Your task to perform on an android device: Open Google Maps and go to "Timeline" Image 0: 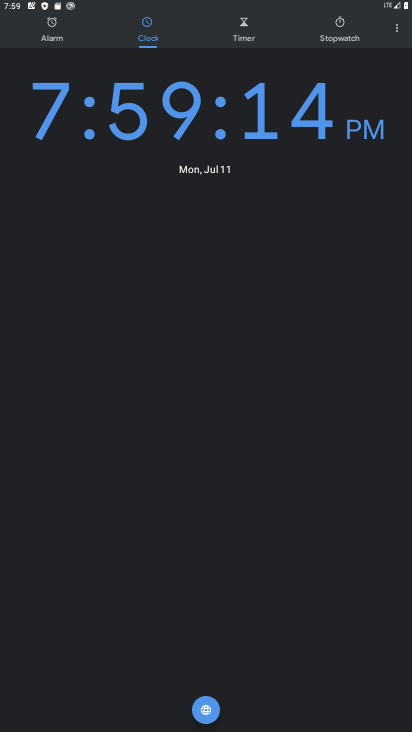
Step 0: press home button
Your task to perform on an android device: Open Google Maps and go to "Timeline" Image 1: 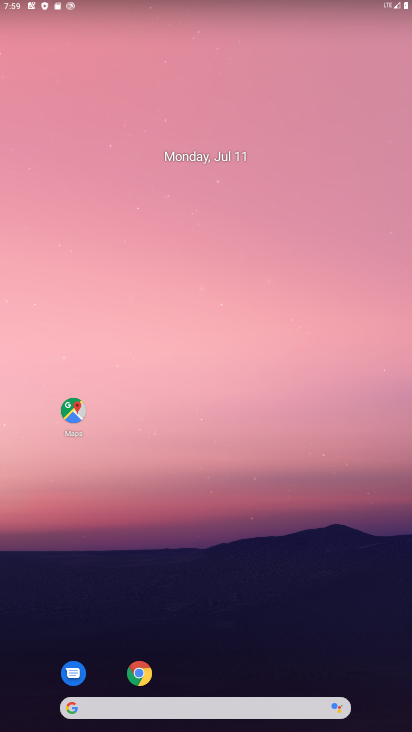
Step 1: click (72, 406)
Your task to perform on an android device: Open Google Maps and go to "Timeline" Image 2: 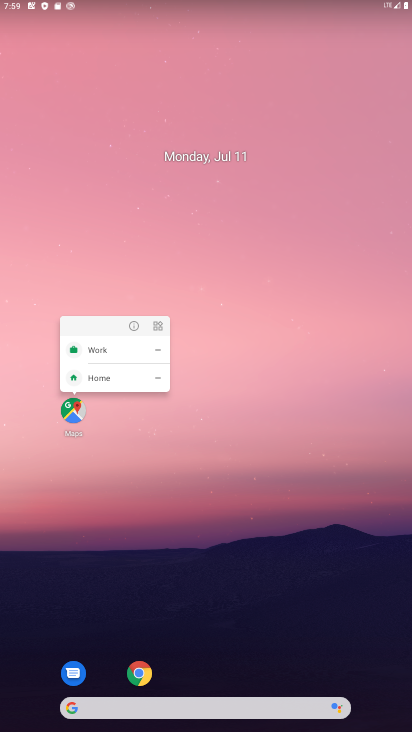
Step 2: drag from (173, 698) to (218, 327)
Your task to perform on an android device: Open Google Maps and go to "Timeline" Image 3: 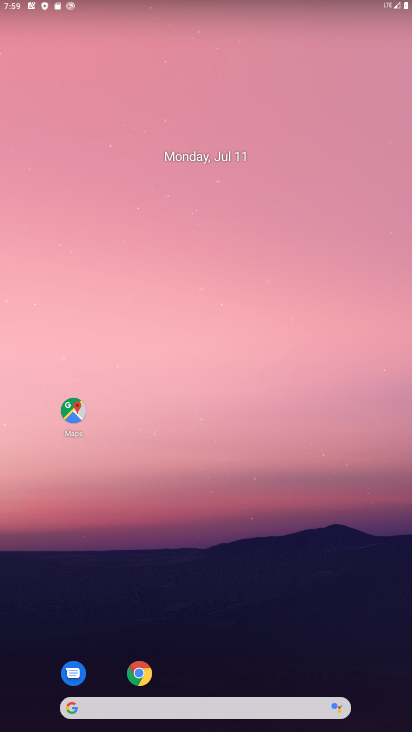
Step 3: drag from (227, 705) to (216, 342)
Your task to perform on an android device: Open Google Maps and go to "Timeline" Image 4: 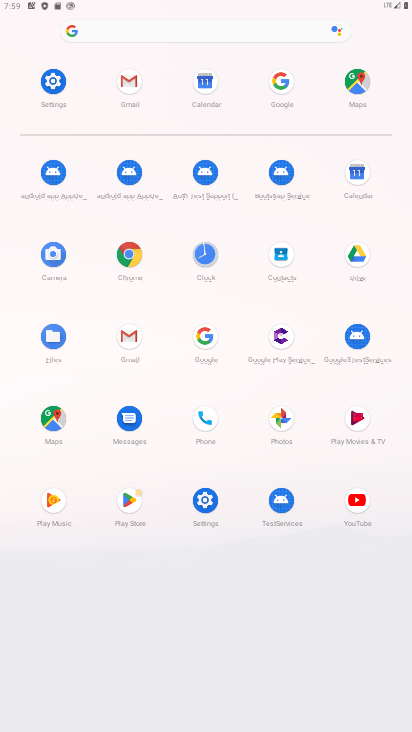
Step 4: click (47, 416)
Your task to perform on an android device: Open Google Maps and go to "Timeline" Image 5: 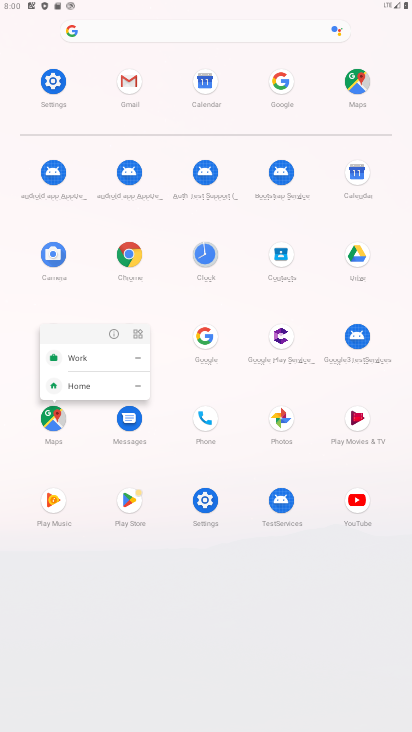
Step 5: click (53, 412)
Your task to perform on an android device: Open Google Maps and go to "Timeline" Image 6: 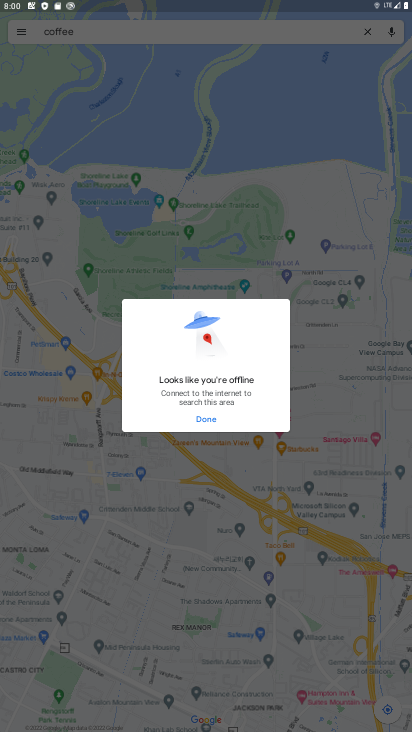
Step 6: click (203, 422)
Your task to perform on an android device: Open Google Maps and go to "Timeline" Image 7: 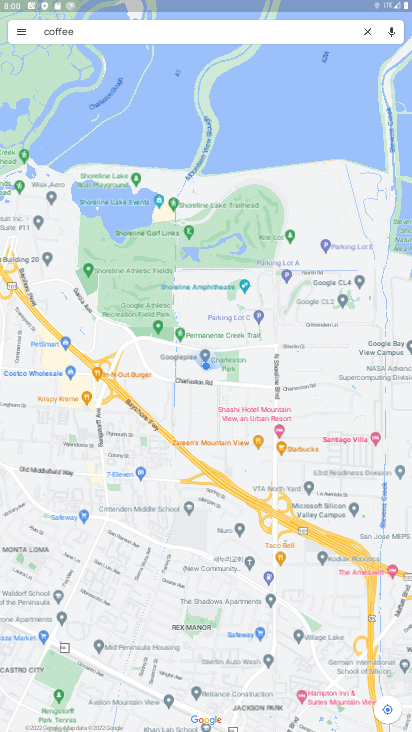
Step 7: click (22, 38)
Your task to perform on an android device: Open Google Maps and go to "Timeline" Image 8: 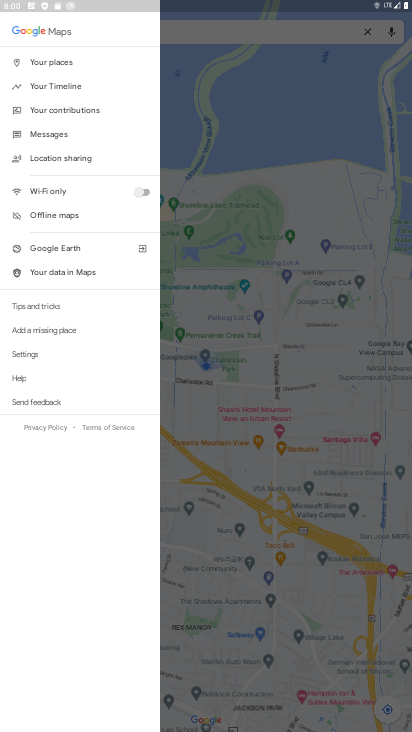
Step 8: click (46, 81)
Your task to perform on an android device: Open Google Maps and go to "Timeline" Image 9: 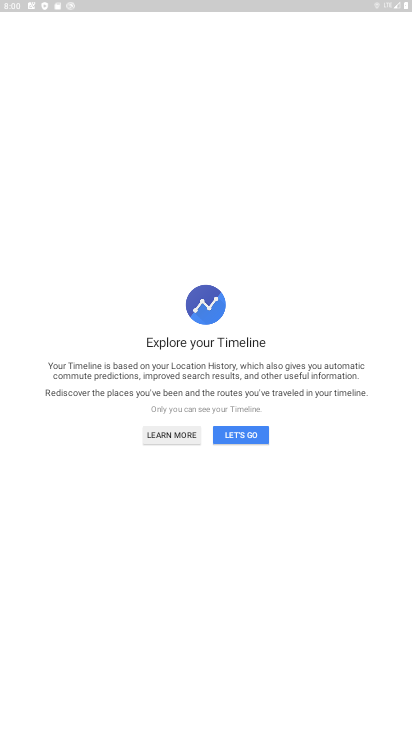
Step 9: click (254, 431)
Your task to perform on an android device: Open Google Maps and go to "Timeline" Image 10: 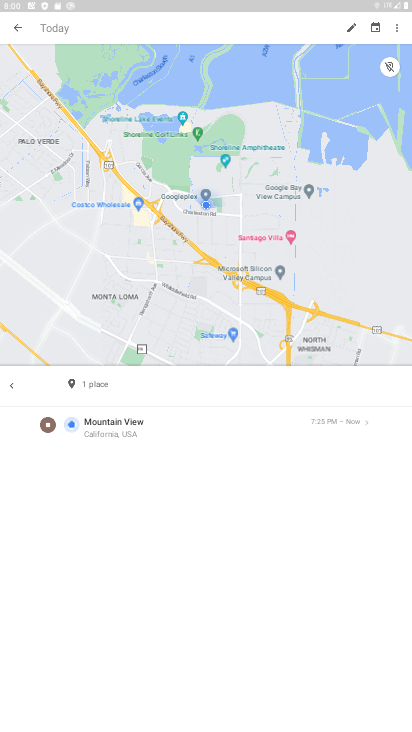
Step 10: task complete